Your task to perform on an android device: manage bookmarks in the chrome app Image 0: 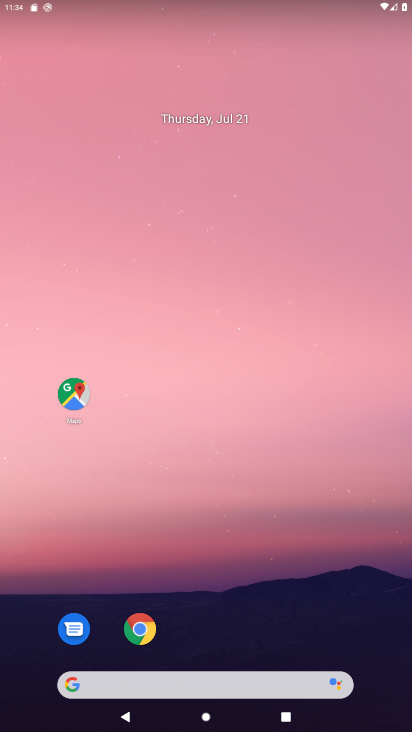
Step 0: click (141, 618)
Your task to perform on an android device: manage bookmarks in the chrome app Image 1: 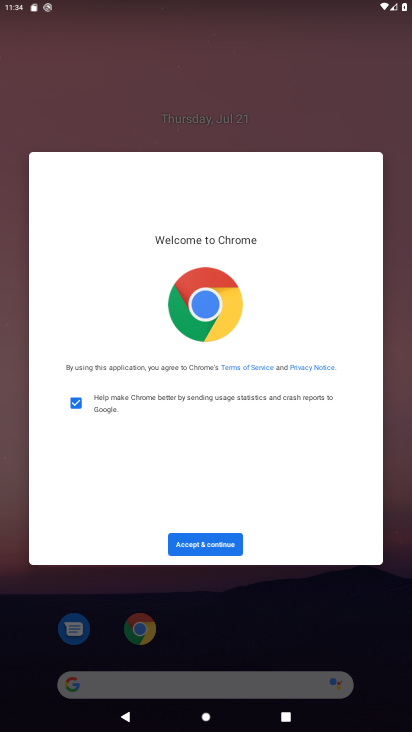
Step 1: click (218, 545)
Your task to perform on an android device: manage bookmarks in the chrome app Image 2: 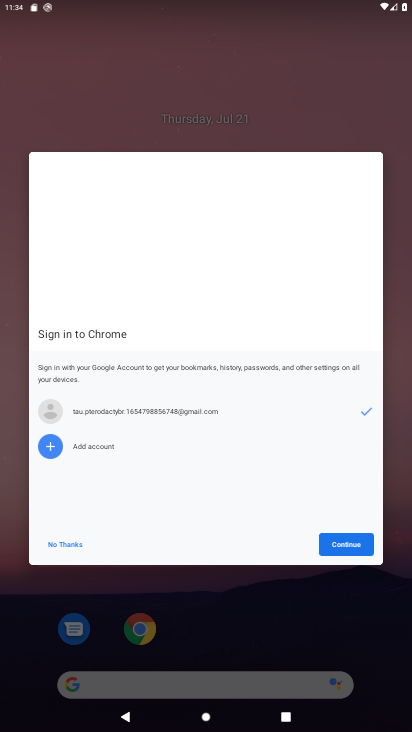
Step 2: click (355, 542)
Your task to perform on an android device: manage bookmarks in the chrome app Image 3: 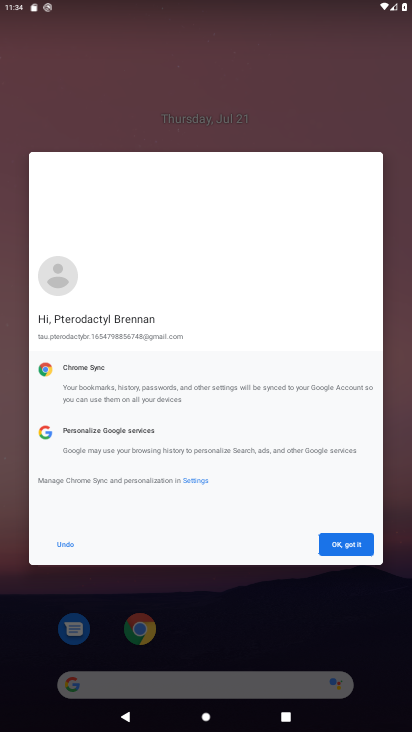
Step 3: click (361, 548)
Your task to perform on an android device: manage bookmarks in the chrome app Image 4: 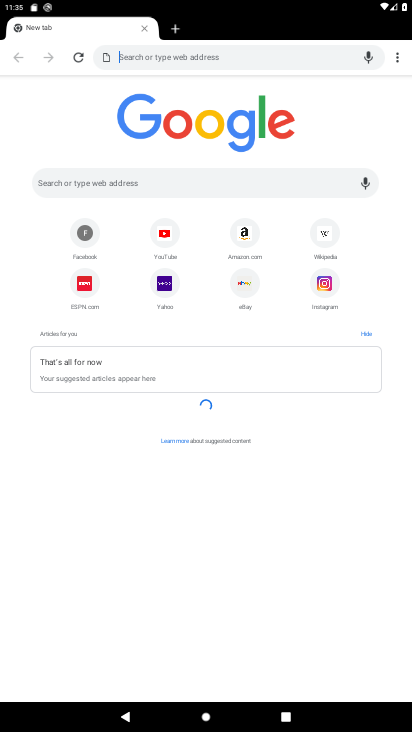
Step 4: click (393, 59)
Your task to perform on an android device: manage bookmarks in the chrome app Image 5: 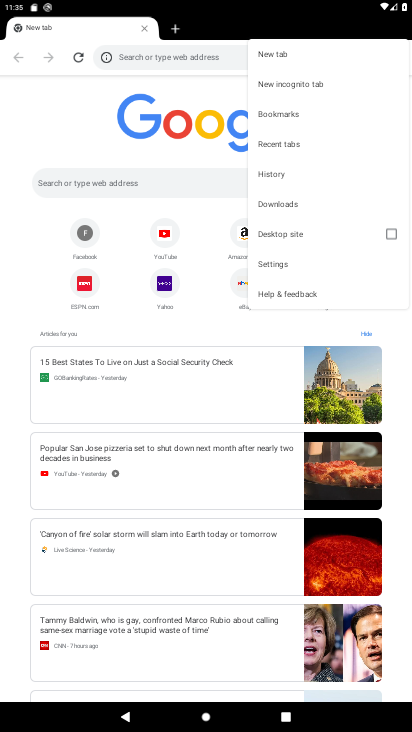
Step 5: click (289, 114)
Your task to perform on an android device: manage bookmarks in the chrome app Image 6: 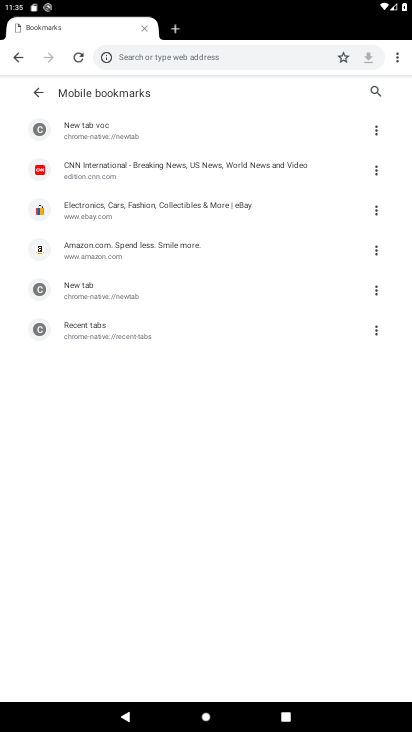
Step 6: click (372, 122)
Your task to perform on an android device: manage bookmarks in the chrome app Image 7: 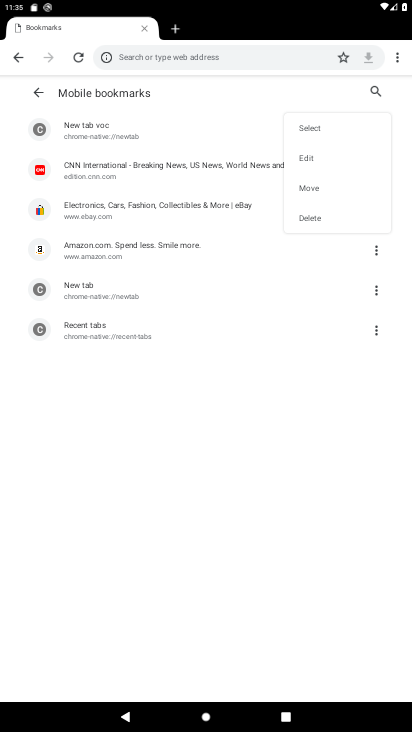
Step 7: click (308, 120)
Your task to perform on an android device: manage bookmarks in the chrome app Image 8: 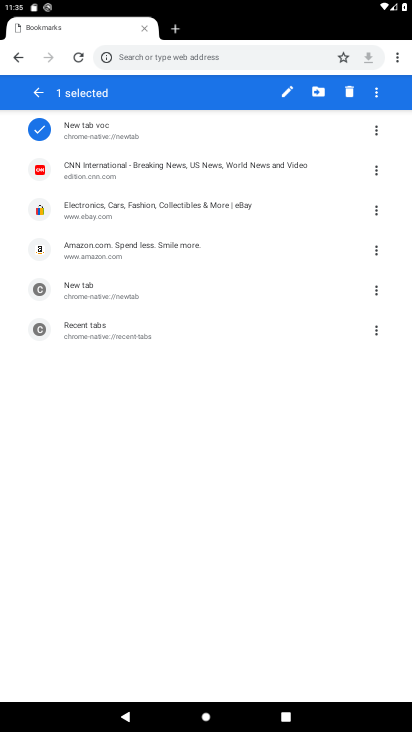
Step 8: click (129, 160)
Your task to perform on an android device: manage bookmarks in the chrome app Image 9: 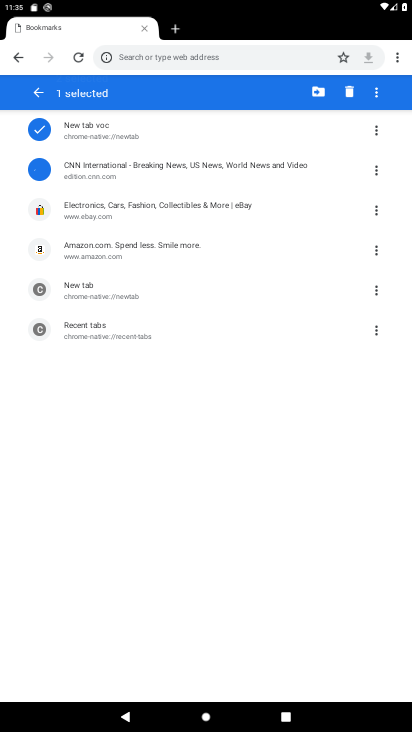
Step 9: click (110, 239)
Your task to perform on an android device: manage bookmarks in the chrome app Image 10: 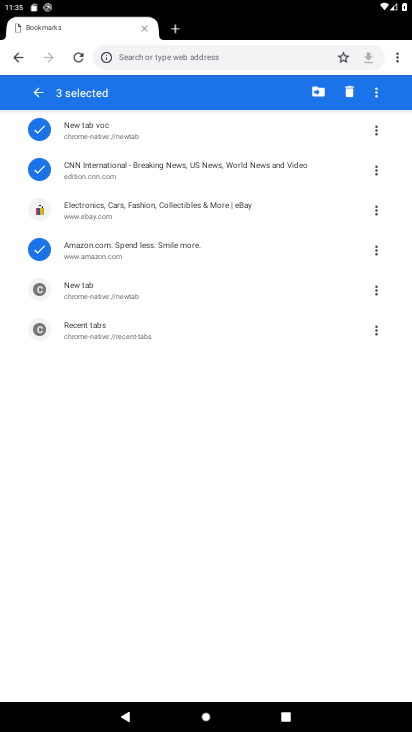
Step 10: click (98, 292)
Your task to perform on an android device: manage bookmarks in the chrome app Image 11: 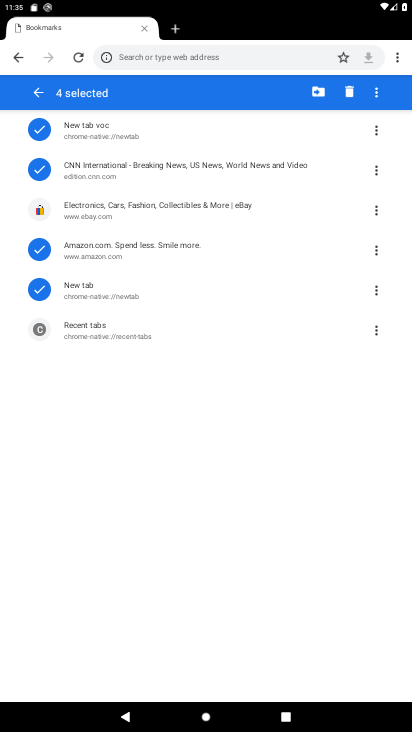
Step 11: click (311, 95)
Your task to perform on an android device: manage bookmarks in the chrome app Image 12: 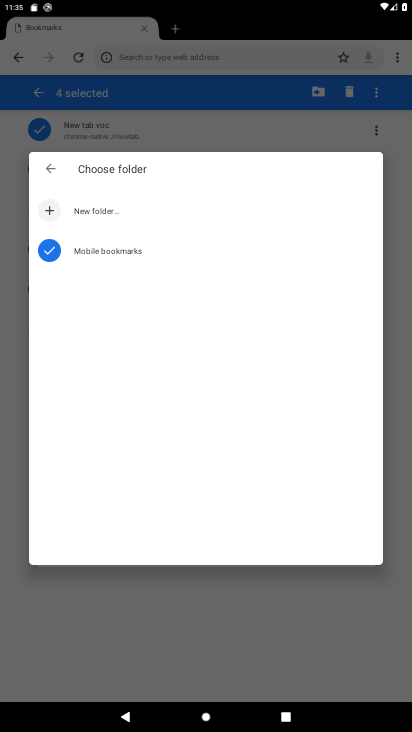
Step 12: click (104, 207)
Your task to perform on an android device: manage bookmarks in the chrome app Image 13: 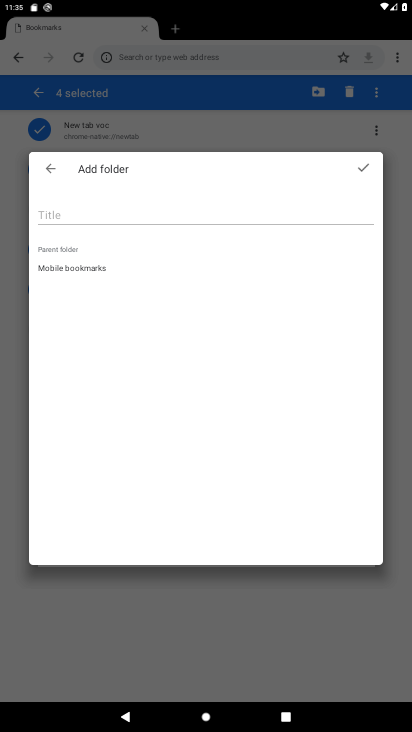
Step 13: type "Voc"
Your task to perform on an android device: manage bookmarks in the chrome app Image 14: 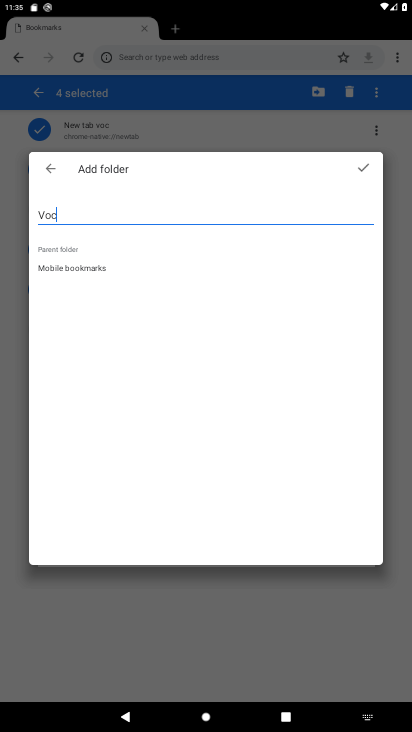
Step 14: click (360, 162)
Your task to perform on an android device: manage bookmarks in the chrome app Image 15: 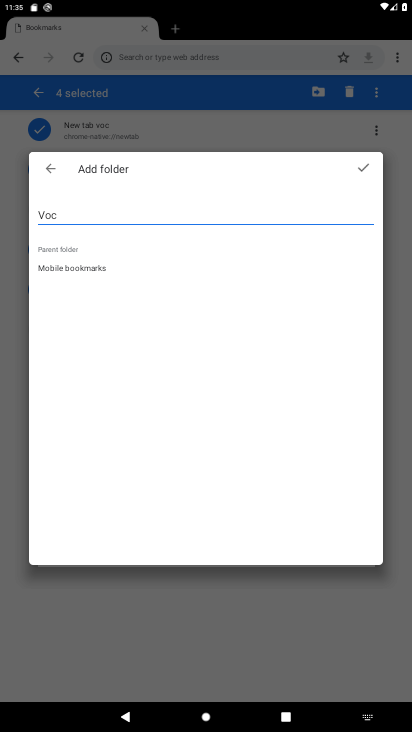
Step 15: click (359, 166)
Your task to perform on an android device: manage bookmarks in the chrome app Image 16: 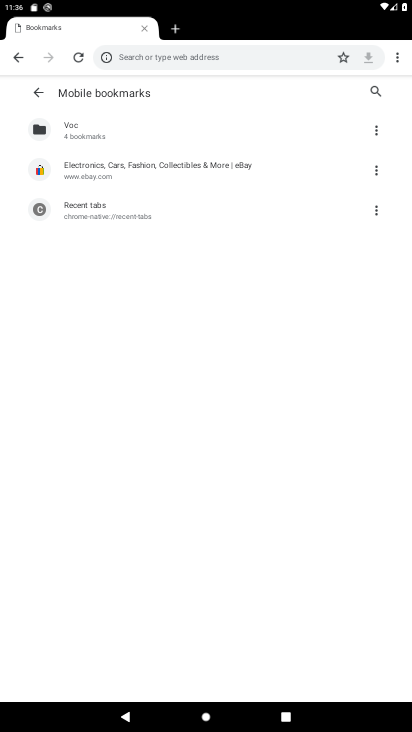
Step 16: task complete